Your task to perform on an android device: Open Google Chrome Image 0: 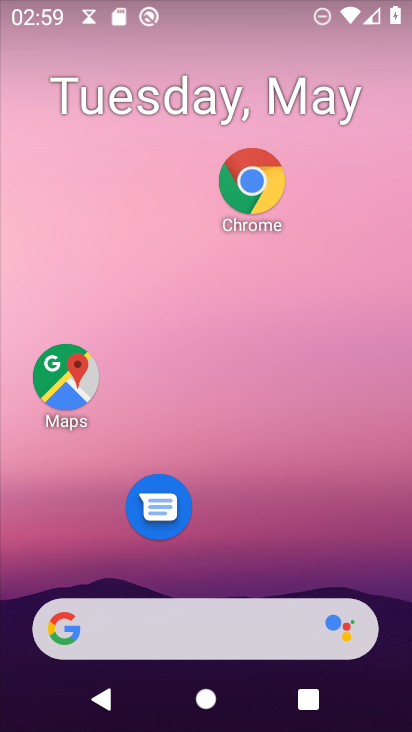
Step 0: drag from (279, 561) to (348, 240)
Your task to perform on an android device: Open Google Chrome Image 1: 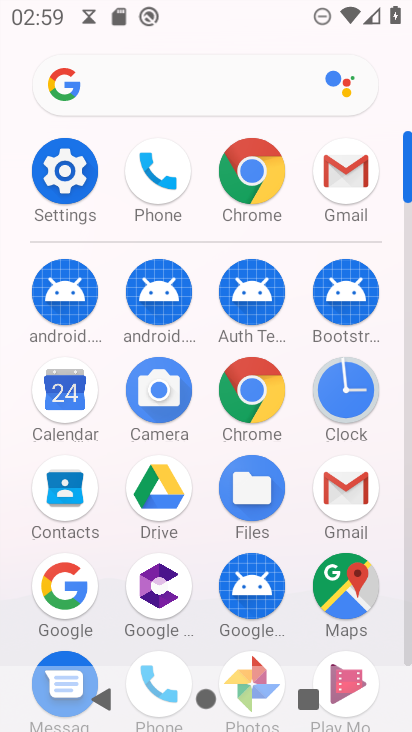
Step 1: click (68, 576)
Your task to perform on an android device: Open Google Chrome Image 2: 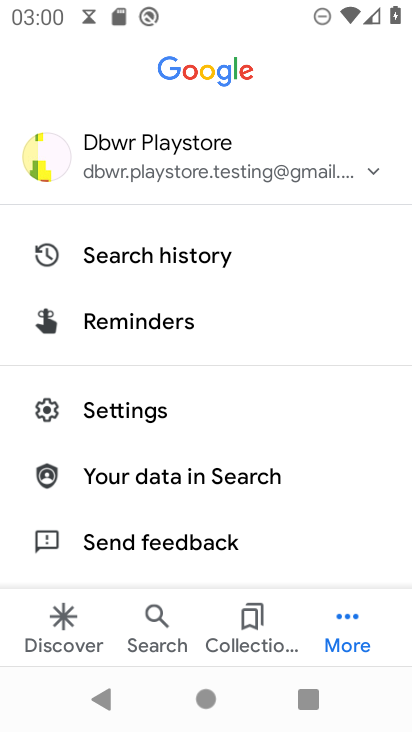
Step 2: task complete